Your task to perform on an android device: change keyboard looks Image 0: 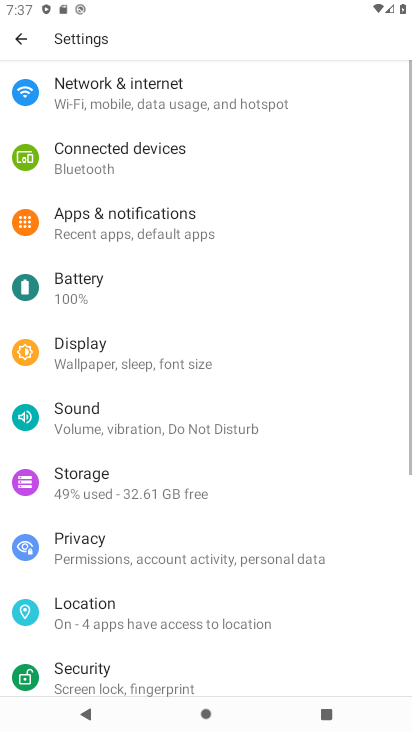
Step 0: press home button
Your task to perform on an android device: change keyboard looks Image 1: 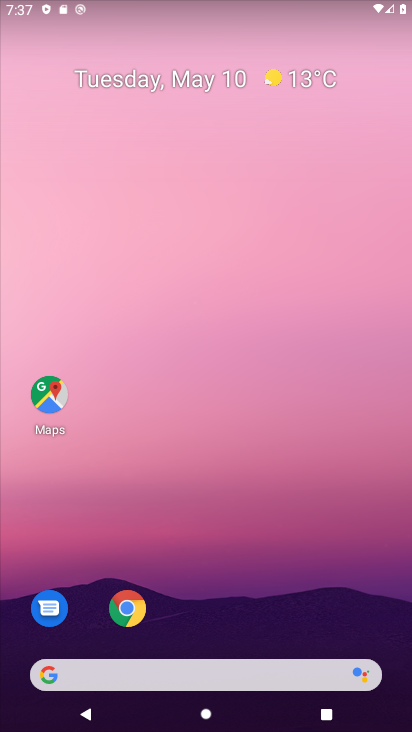
Step 1: drag from (236, 668) to (372, 110)
Your task to perform on an android device: change keyboard looks Image 2: 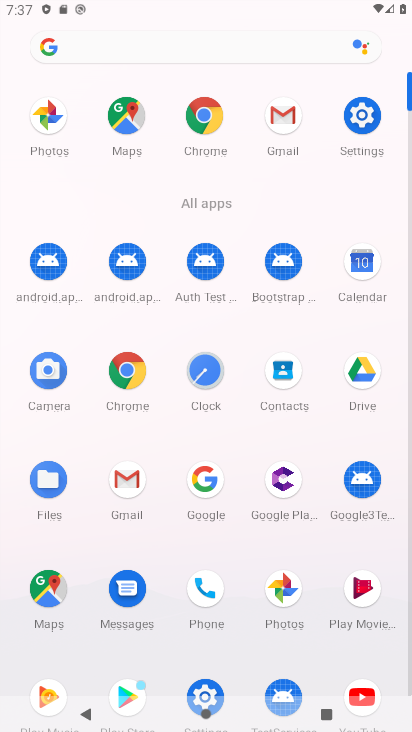
Step 2: click (369, 111)
Your task to perform on an android device: change keyboard looks Image 3: 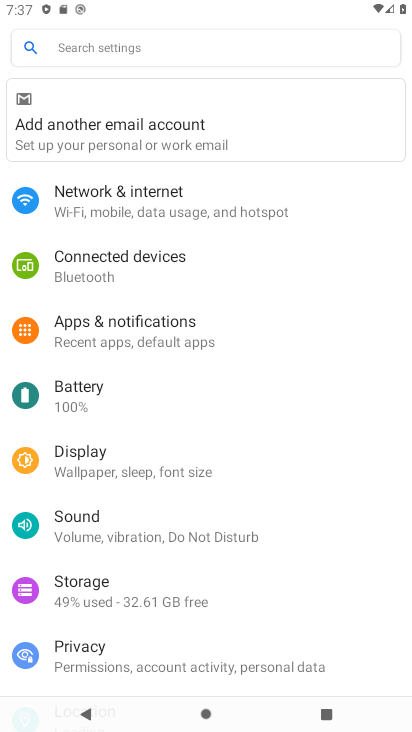
Step 3: drag from (180, 626) to (376, 130)
Your task to perform on an android device: change keyboard looks Image 4: 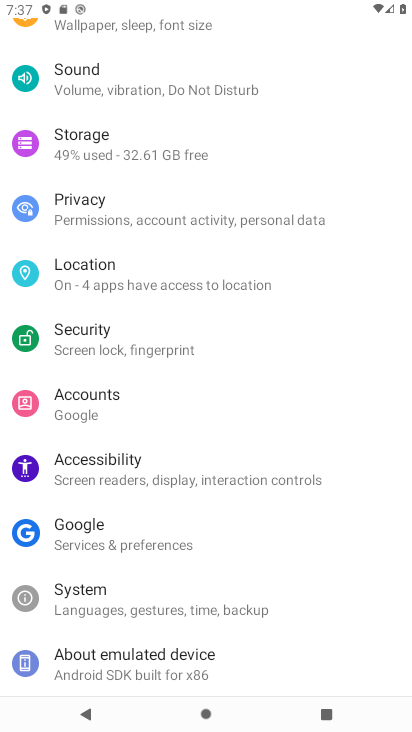
Step 4: click (182, 611)
Your task to perform on an android device: change keyboard looks Image 5: 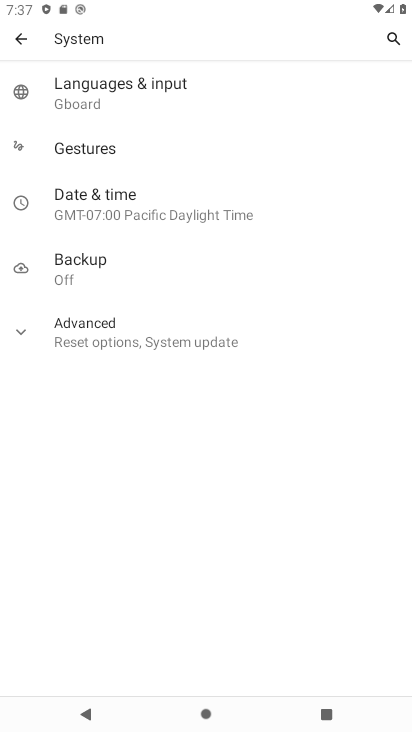
Step 5: click (138, 88)
Your task to perform on an android device: change keyboard looks Image 6: 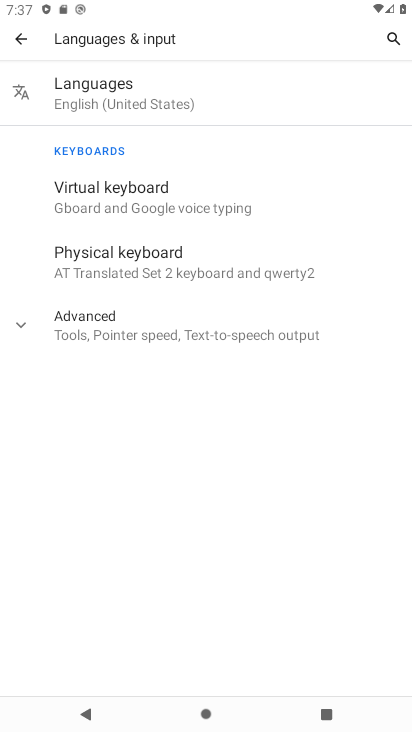
Step 6: click (88, 200)
Your task to perform on an android device: change keyboard looks Image 7: 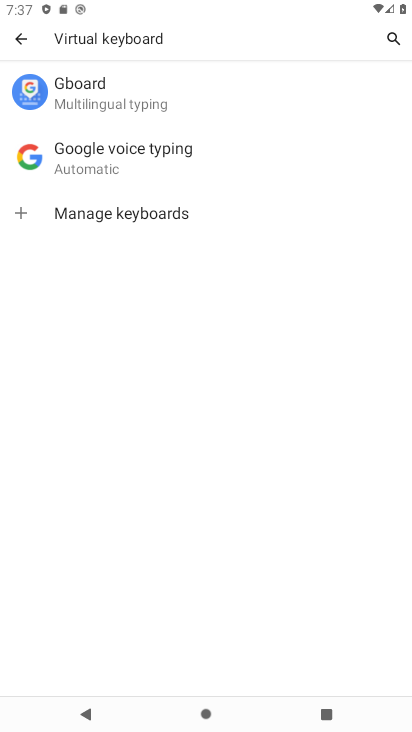
Step 7: click (106, 100)
Your task to perform on an android device: change keyboard looks Image 8: 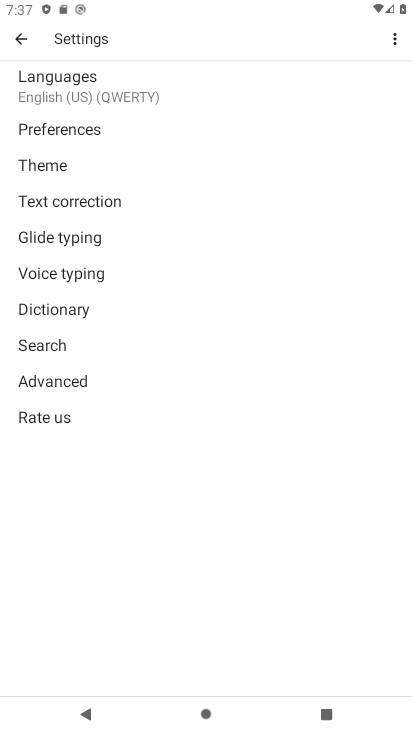
Step 8: click (48, 163)
Your task to perform on an android device: change keyboard looks Image 9: 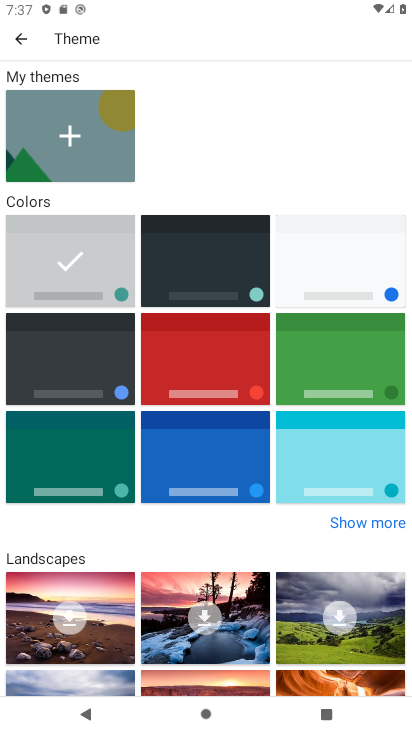
Step 9: click (330, 361)
Your task to perform on an android device: change keyboard looks Image 10: 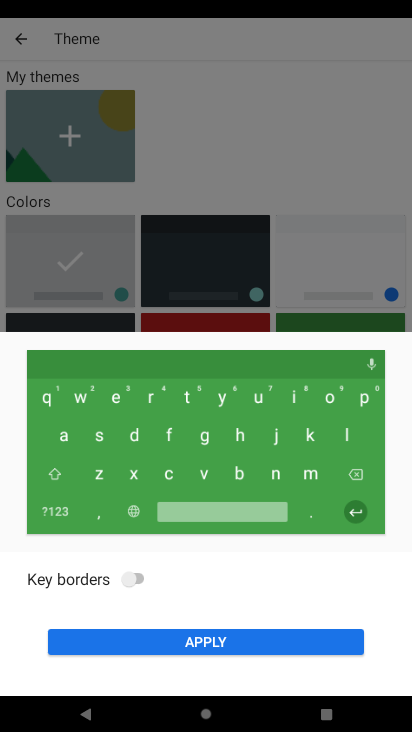
Step 10: click (228, 641)
Your task to perform on an android device: change keyboard looks Image 11: 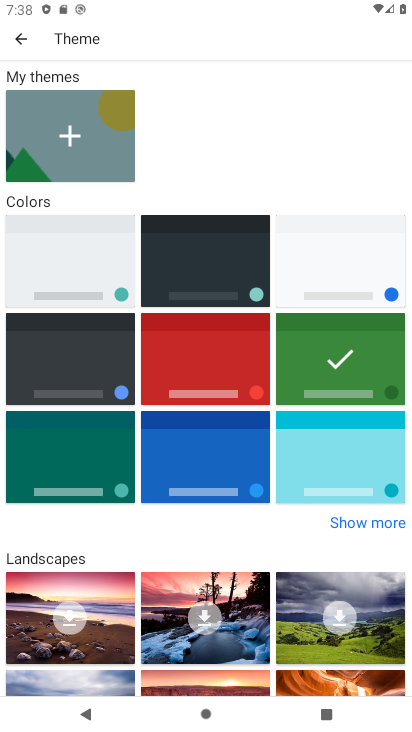
Step 11: task complete